Your task to perform on an android device: Open Google Chrome and click the shortcut for Amazon.com Image 0: 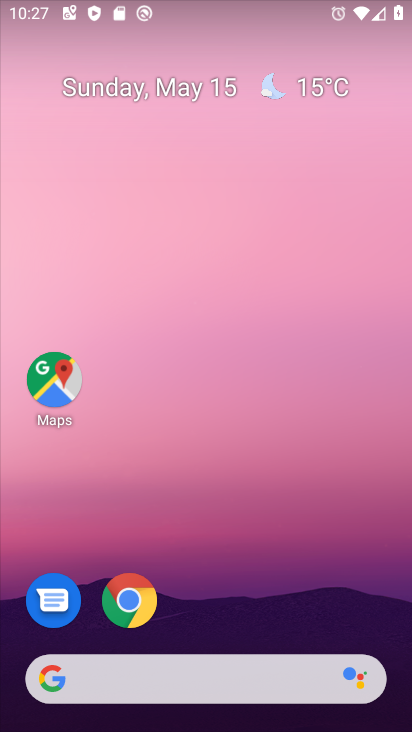
Step 0: drag from (357, 574) to (348, 185)
Your task to perform on an android device: Open Google Chrome and click the shortcut for Amazon.com Image 1: 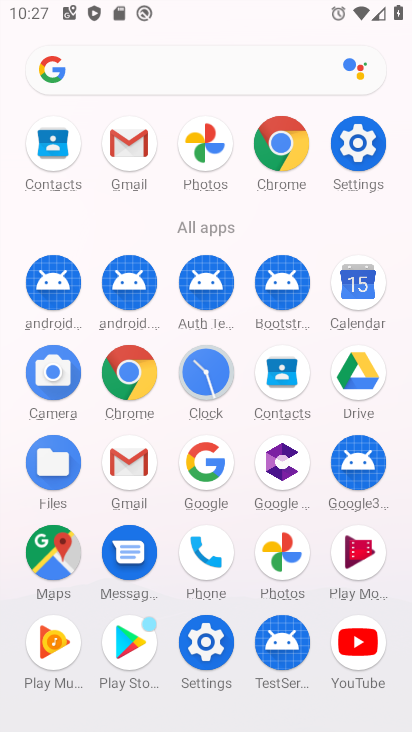
Step 1: click (126, 369)
Your task to perform on an android device: Open Google Chrome and click the shortcut for Amazon.com Image 2: 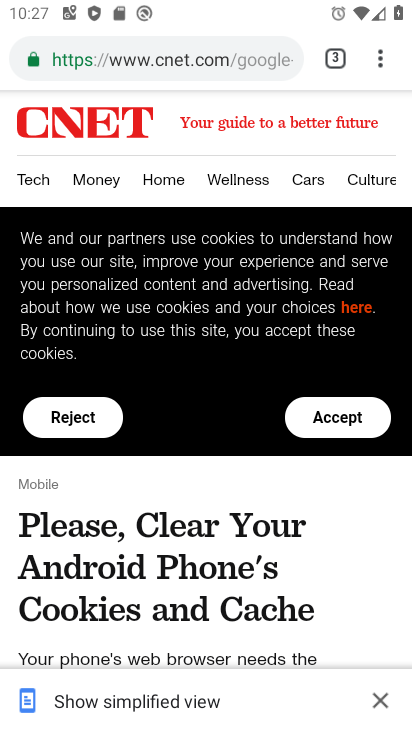
Step 2: press back button
Your task to perform on an android device: Open Google Chrome and click the shortcut for Amazon.com Image 3: 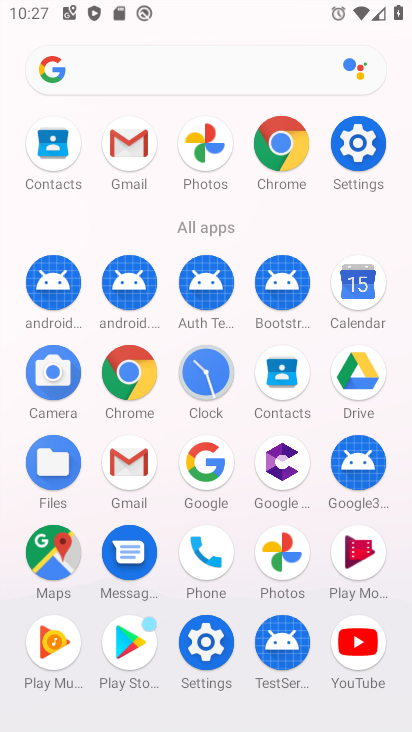
Step 3: click (290, 155)
Your task to perform on an android device: Open Google Chrome and click the shortcut for Amazon.com Image 4: 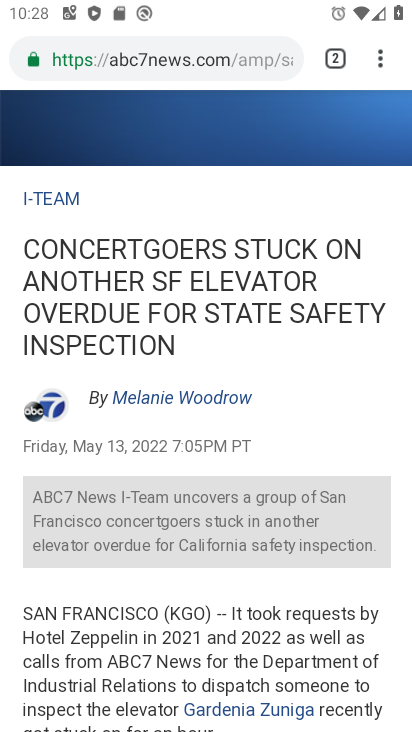
Step 4: click (202, 61)
Your task to perform on an android device: Open Google Chrome and click the shortcut for Amazon.com Image 5: 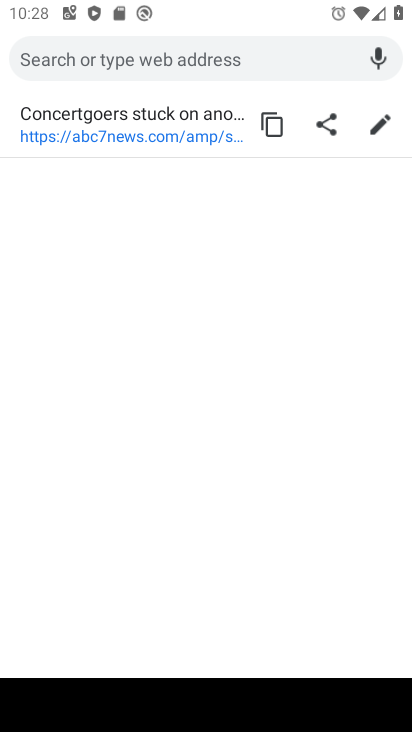
Step 5: type "amzoan.com"
Your task to perform on an android device: Open Google Chrome and click the shortcut for Amazon.com Image 6: 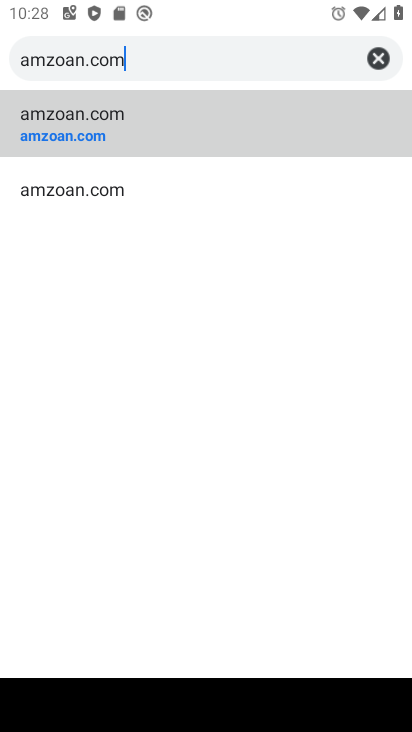
Step 6: click (92, 144)
Your task to perform on an android device: Open Google Chrome and click the shortcut for Amazon.com Image 7: 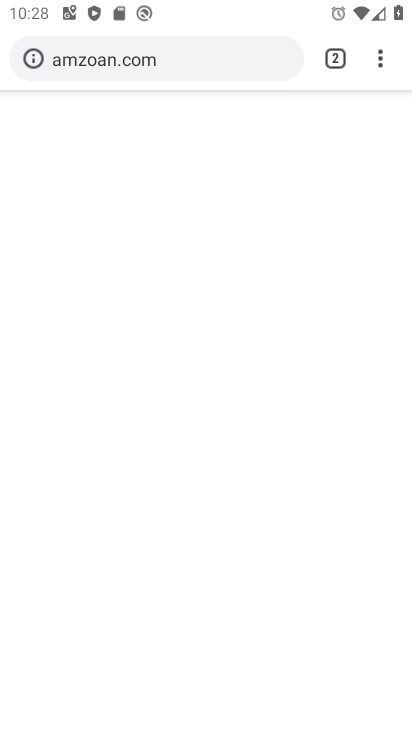
Step 7: click (196, 60)
Your task to perform on an android device: Open Google Chrome and click the shortcut for Amazon.com Image 8: 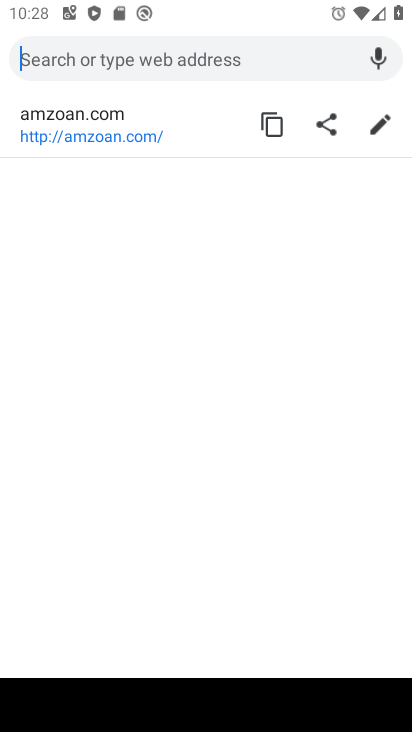
Step 8: click (116, 138)
Your task to perform on an android device: Open Google Chrome and click the shortcut for Amazon.com Image 9: 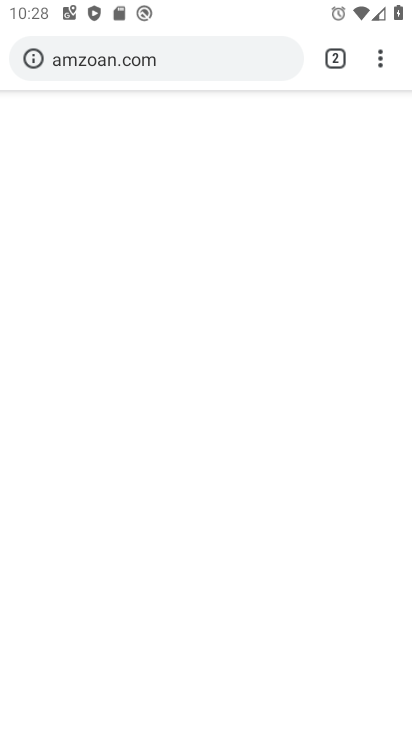
Step 9: task complete